Your task to perform on an android device: Toggle the flashlight Image 0: 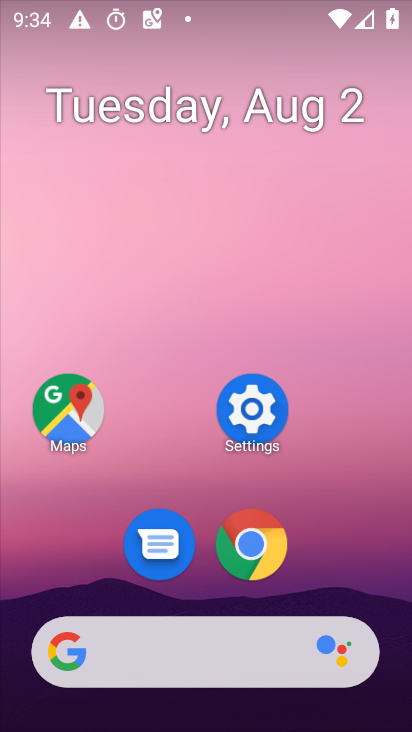
Step 0: press home button
Your task to perform on an android device: Toggle the flashlight Image 1: 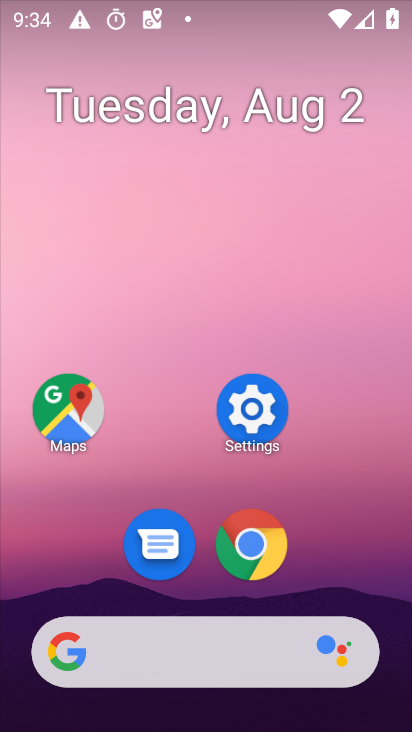
Step 1: task complete